Your task to perform on an android device: toggle improve location accuracy Image 0: 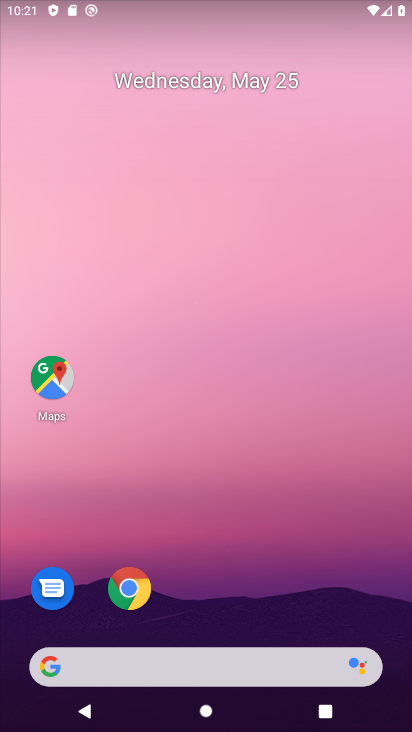
Step 0: drag from (286, 589) to (253, 157)
Your task to perform on an android device: toggle improve location accuracy Image 1: 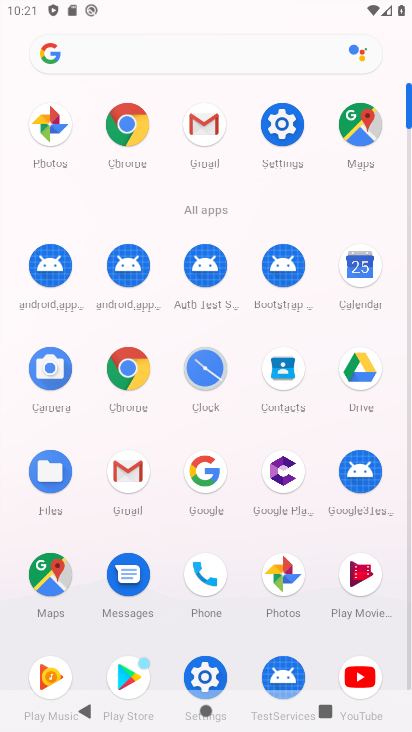
Step 1: click (279, 129)
Your task to perform on an android device: toggle improve location accuracy Image 2: 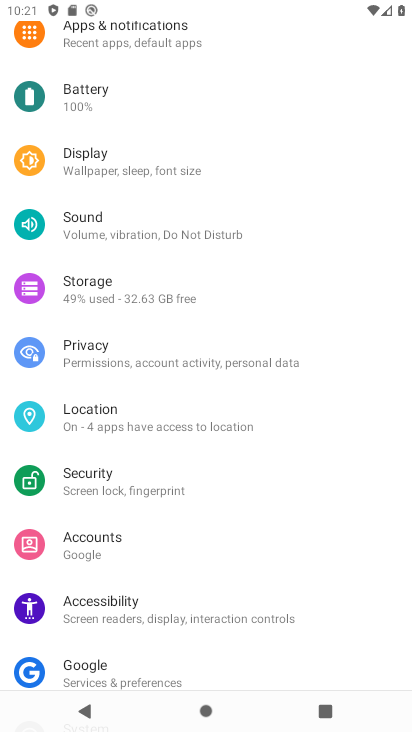
Step 2: click (161, 422)
Your task to perform on an android device: toggle improve location accuracy Image 3: 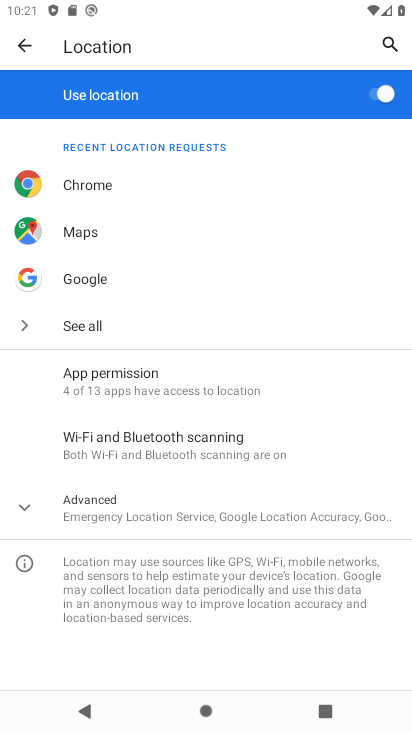
Step 3: click (137, 504)
Your task to perform on an android device: toggle improve location accuracy Image 4: 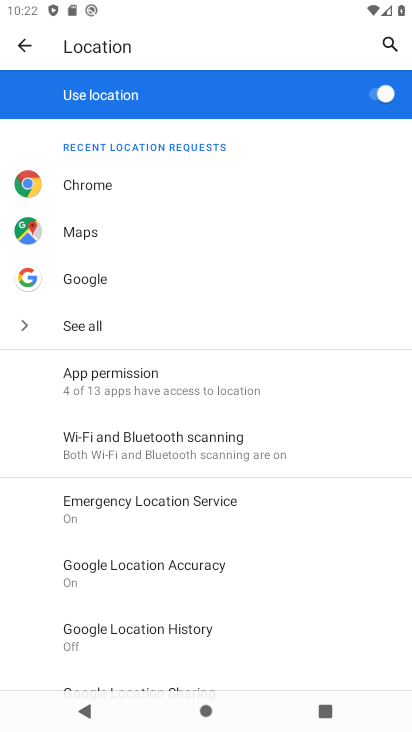
Step 4: click (217, 566)
Your task to perform on an android device: toggle improve location accuracy Image 5: 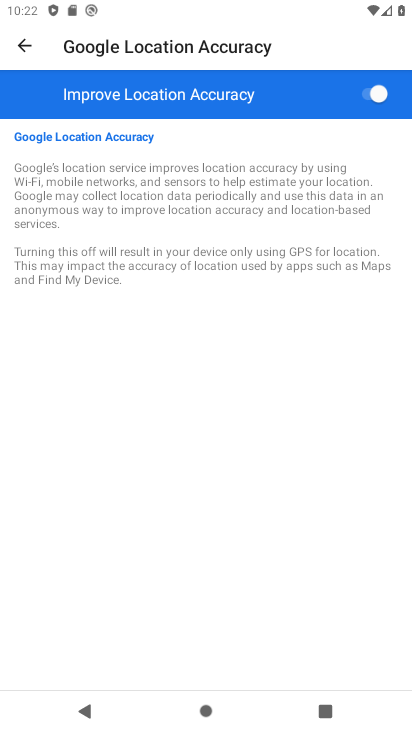
Step 5: click (372, 105)
Your task to perform on an android device: toggle improve location accuracy Image 6: 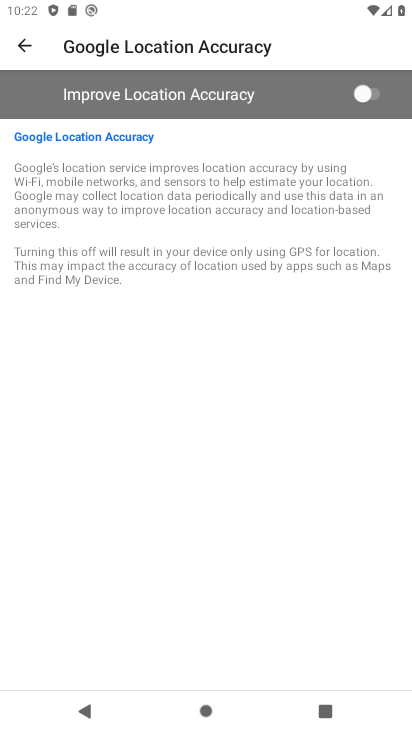
Step 6: task complete